Your task to perform on an android device: Turn on the flashlight Image 0: 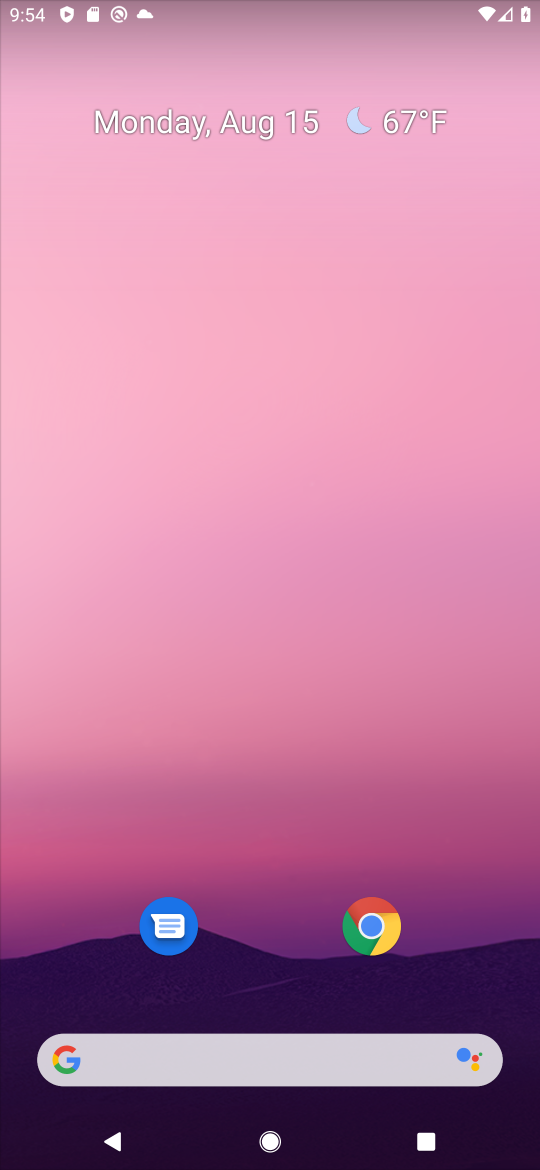
Step 0: press home button
Your task to perform on an android device: Turn on the flashlight Image 1: 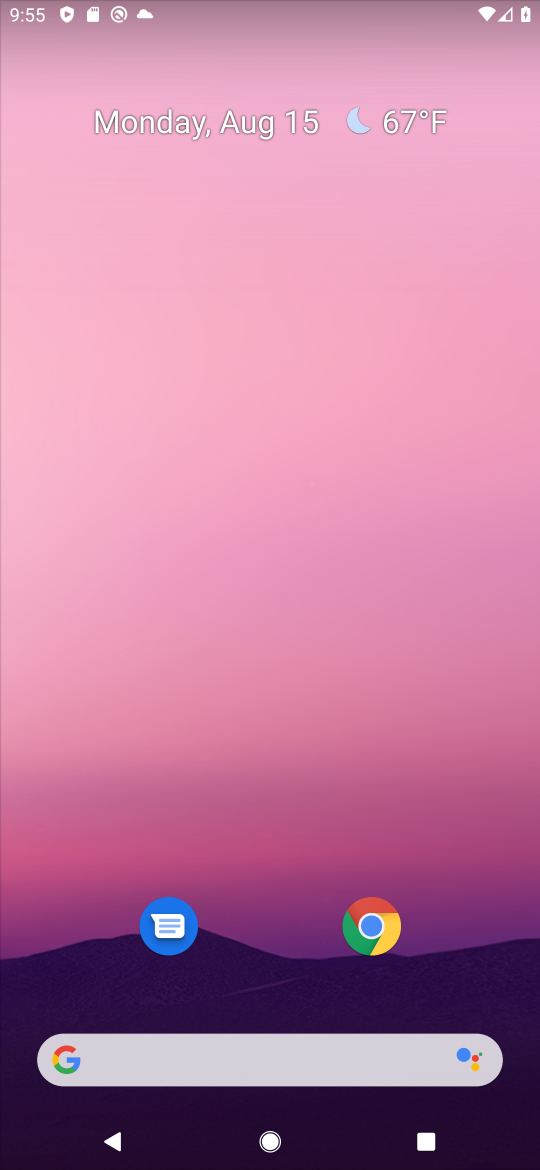
Step 1: task complete